Your task to perform on an android device: Open eBay Image 0: 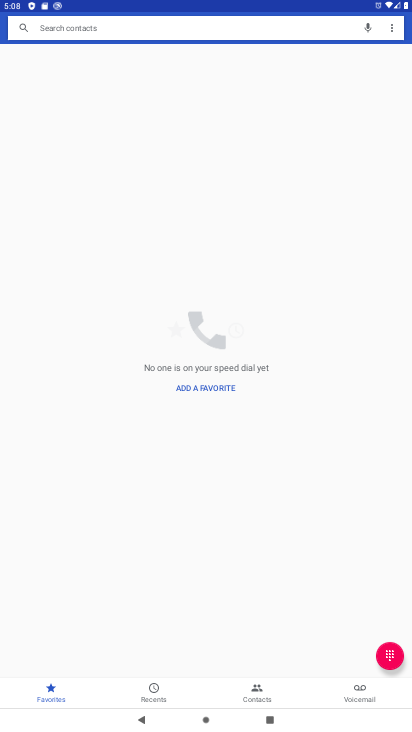
Step 0: drag from (267, 638) to (258, 601)
Your task to perform on an android device: Open eBay Image 1: 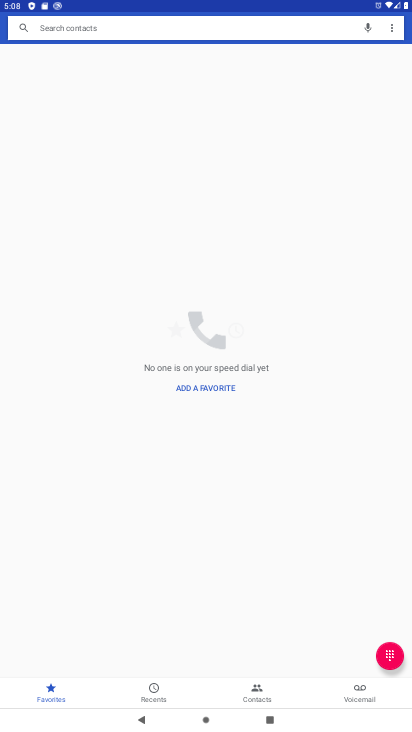
Step 1: press home button
Your task to perform on an android device: Open eBay Image 2: 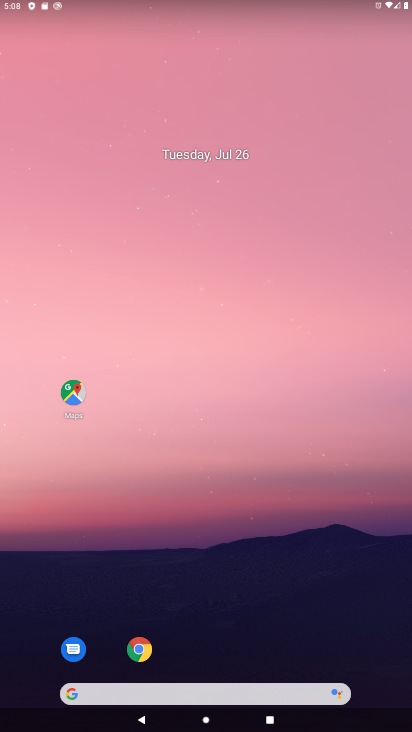
Step 2: click (145, 659)
Your task to perform on an android device: Open eBay Image 3: 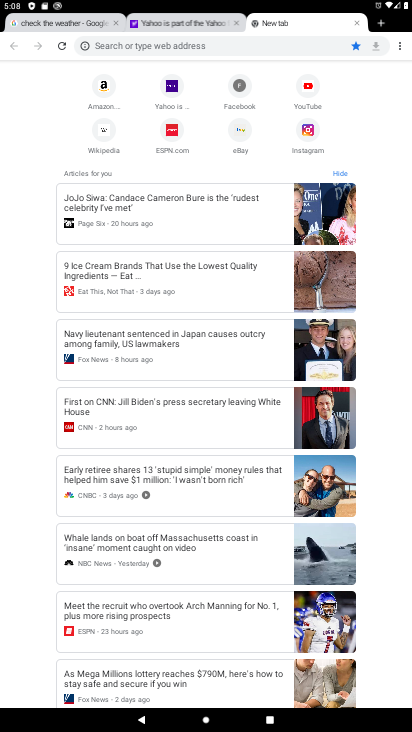
Step 3: click (245, 123)
Your task to perform on an android device: Open eBay Image 4: 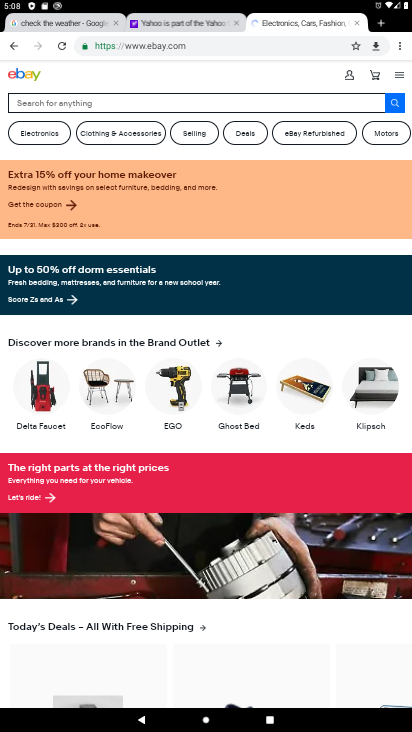
Step 4: task complete